Your task to perform on an android device: delete location history Image 0: 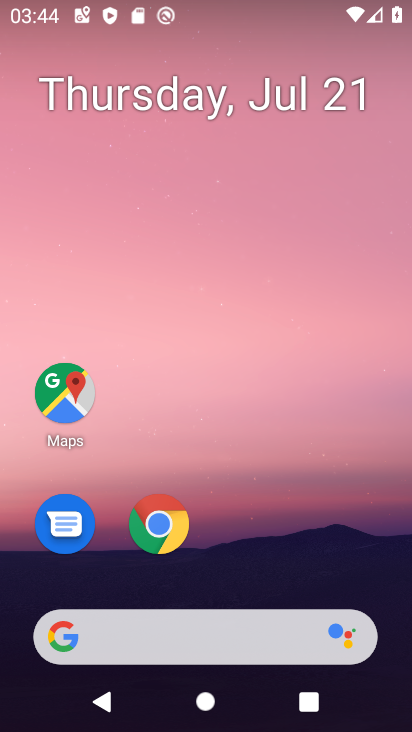
Step 0: drag from (298, 542) to (281, 51)
Your task to perform on an android device: delete location history Image 1: 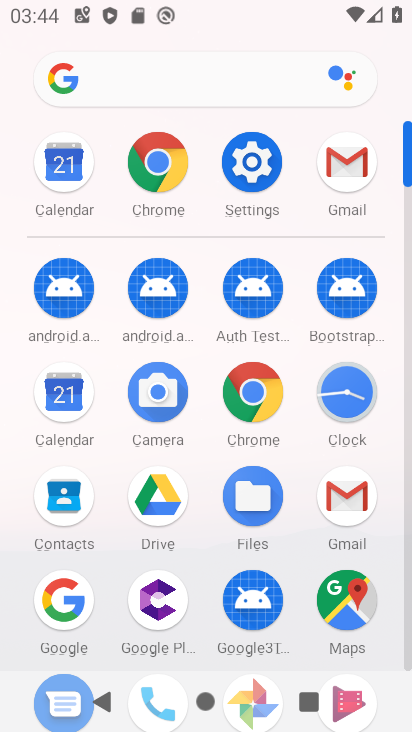
Step 1: click (260, 158)
Your task to perform on an android device: delete location history Image 2: 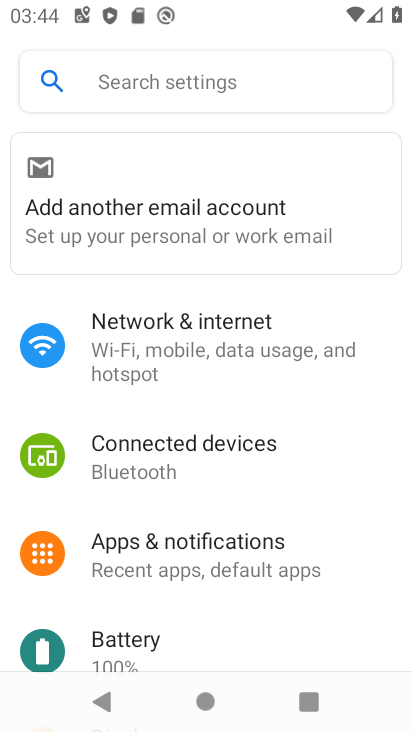
Step 2: press home button
Your task to perform on an android device: delete location history Image 3: 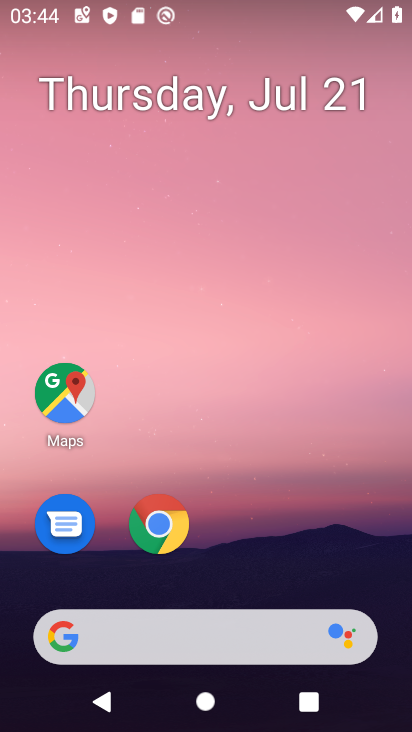
Step 3: click (64, 397)
Your task to perform on an android device: delete location history Image 4: 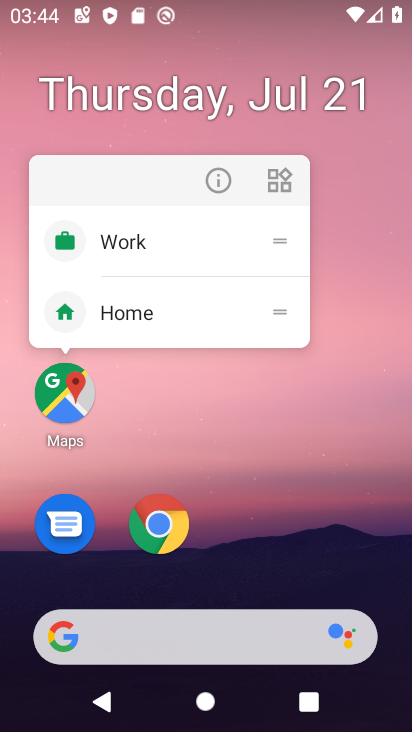
Step 4: click (59, 407)
Your task to perform on an android device: delete location history Image 5: 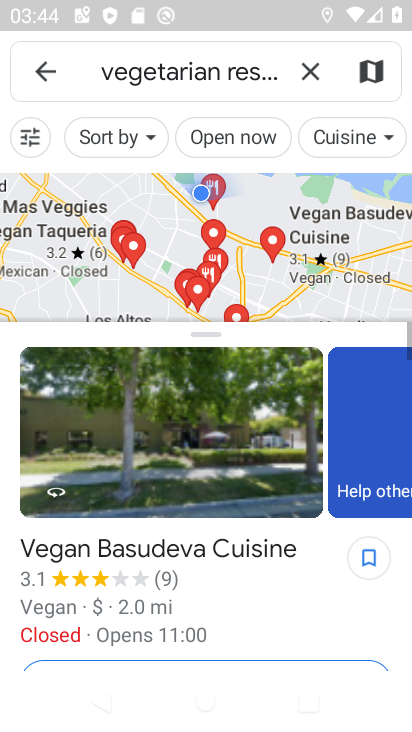
Step 5: click (42, 69)
Your task to perform on an android device: delete location history Image 6: 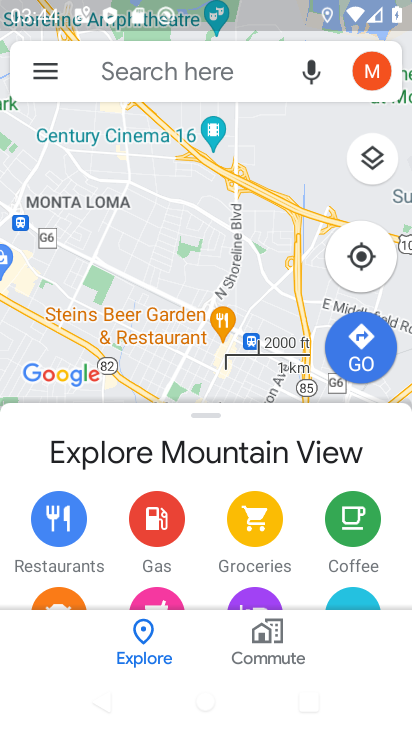
Step 6: click (42, 69)
Your task to perform on an android device: delete location history Image 7: 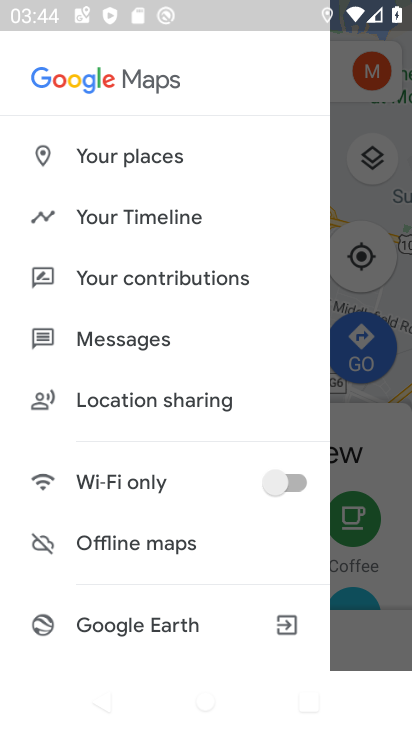
Step 7: click (142, 219)
Your task to perform on an android device: delete location history Image 8: 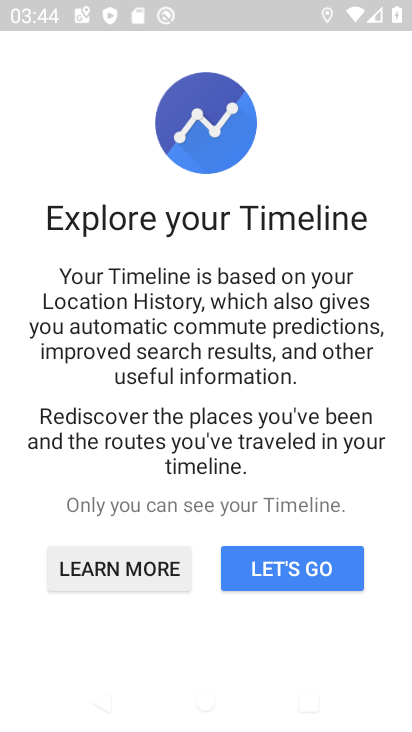
Step 8: click (271, 563)
Your task to perform on an android device: delete location history Image 9: 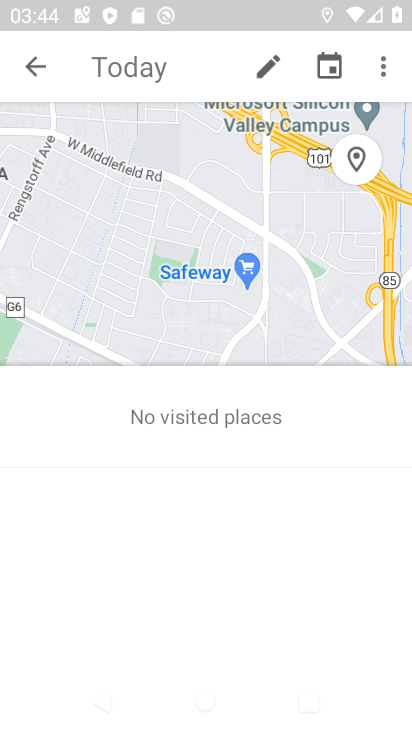
Step 9: click (377, 71)
Your task to perform on an android device: delete location history Image 10: 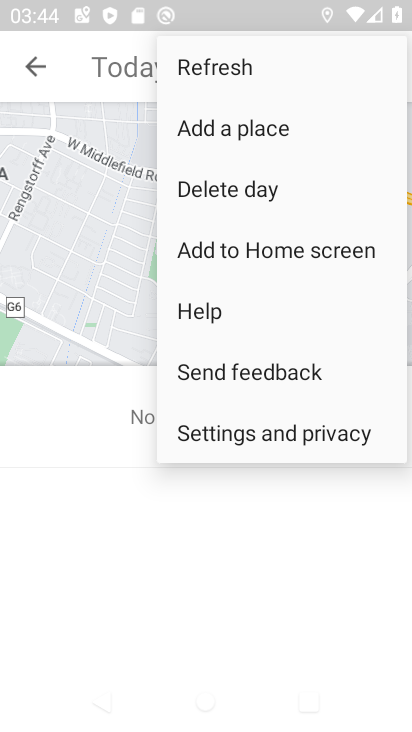
Step 10: click (292, 430)
Your task to perform on an android device: delete location history Image 11: 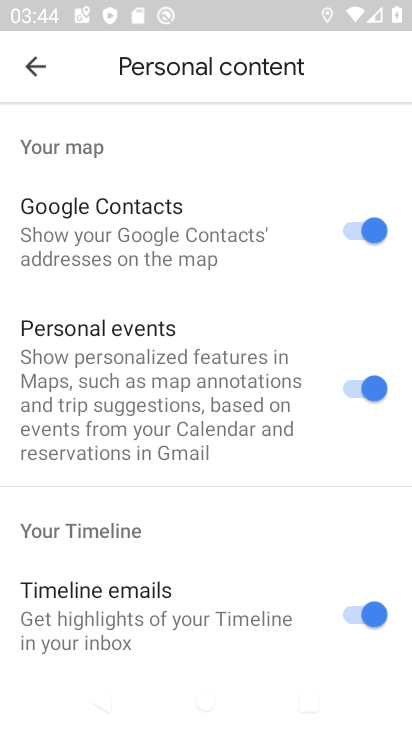
Step 11: drag from (249, 553) to (228, 163)
Your task to perform on an android device: delete location history Image 12: 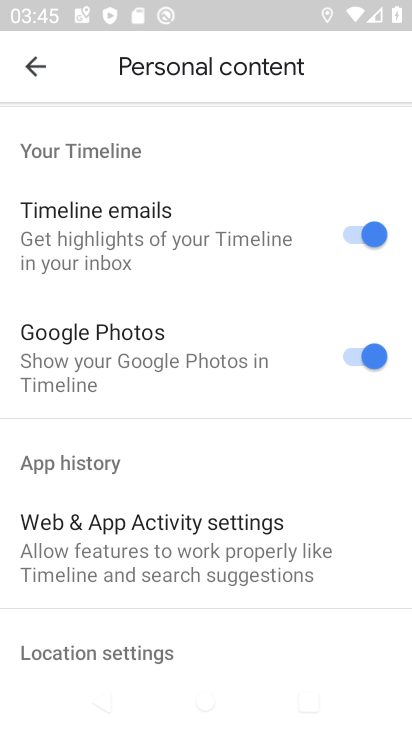
Step 12: drag from (214, 454) to (212, 128)
Your task to perform on an android device: delete location history Image 13: 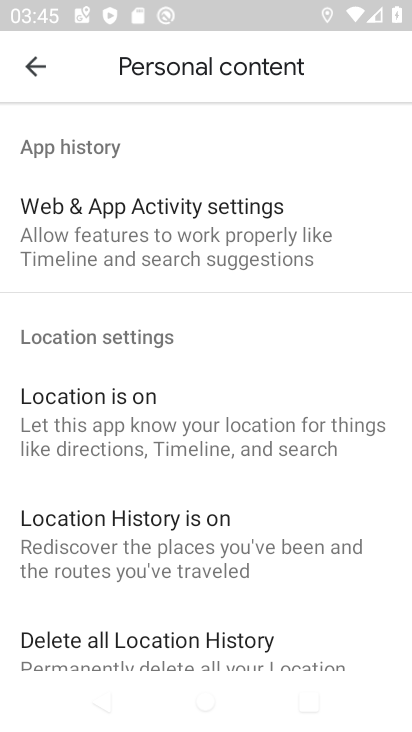
Step 13: drag from (262, 525) to (277, 204)
Your task to perform on an android device: delete location history Image 14: 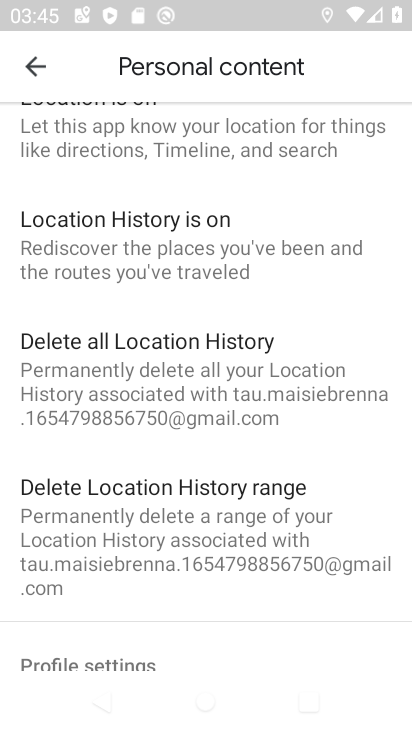
Step 14: click (273, 519)
Your task to perform on an android device: delete location history Image 15: 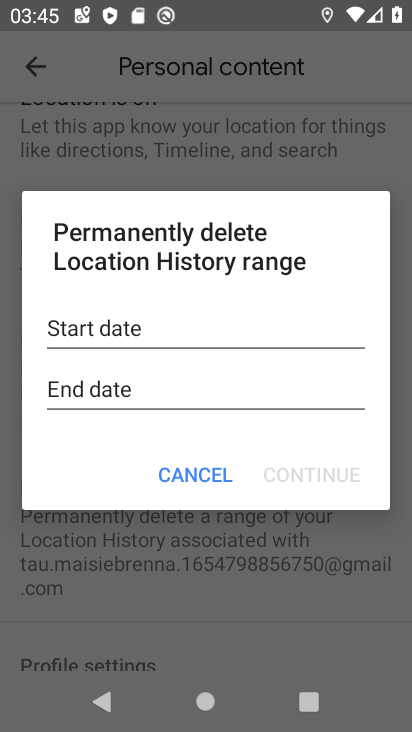
Step 15: click (203, 466)
Your task to perform on an android device: delete location history Image 16: 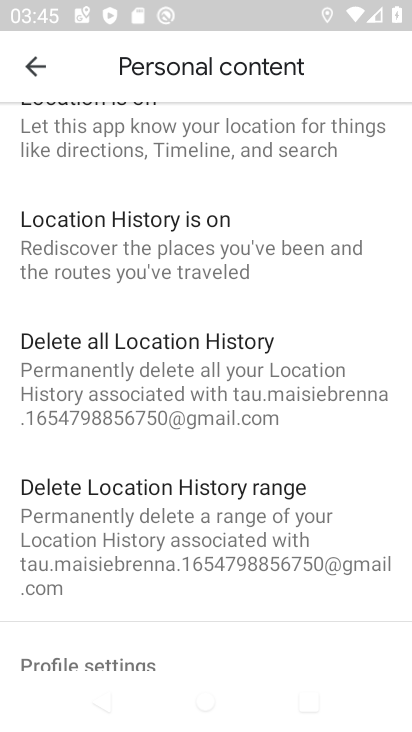
Step 16: click (240, 372)
Your task to perform on an android device: delete location history Image 17: 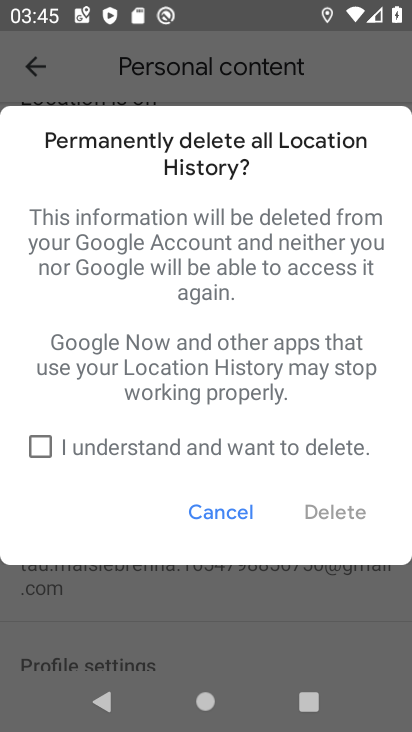
Step 17: click (43, 441)
Your task to perform on an android device: delete location history Image 18: 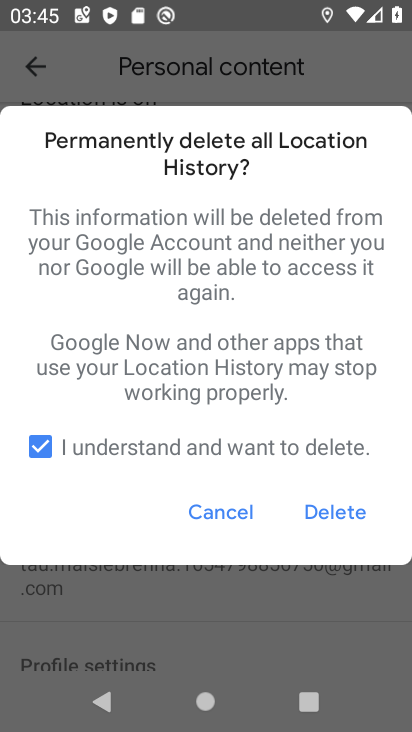
Step 18: click (332, 510)
Your task to perform on an android device: delete location history Image 19: 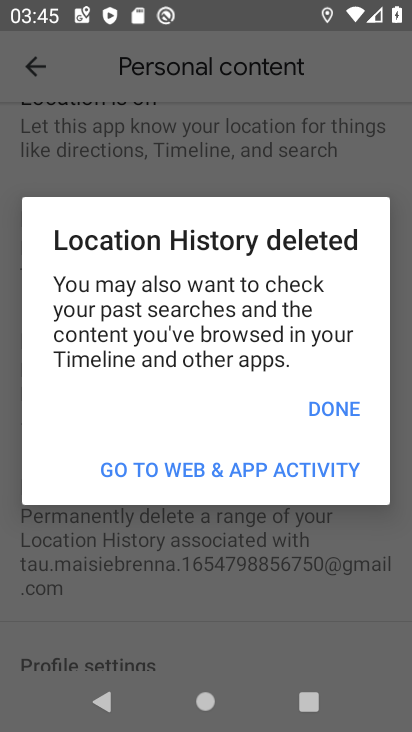
Step 19: click (341, 404)
Your task to perform on an android device: delete location history Image 20: 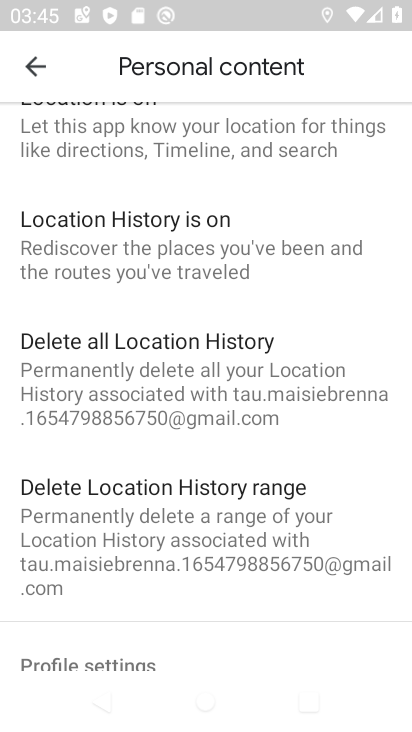
Step 20: task complete